Your task to perform on an android device: Open the calendar and show me this week's events? Image 0: 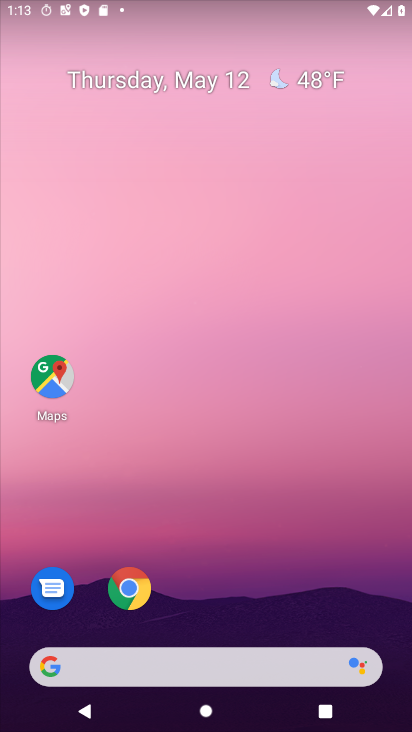
Step 0: drag from (221, 586) to (182, 187)
Your task to perform on an android device: Open the calendar and show me this week's events? Image 1: 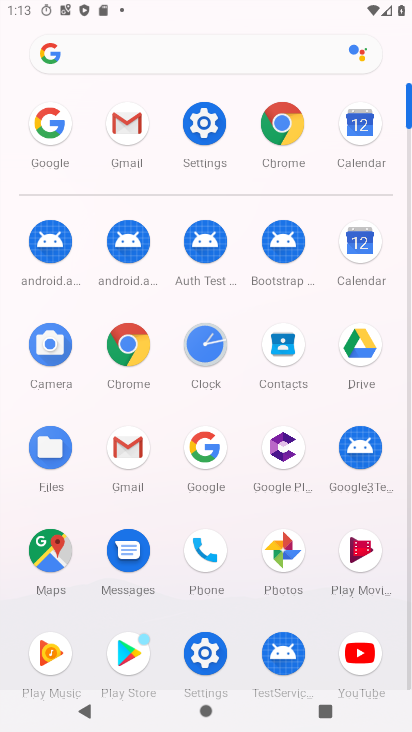
Step 1: click (360, 241)
Your task to perform on an android device: Open the calendar and show me this week's events? Image 2: 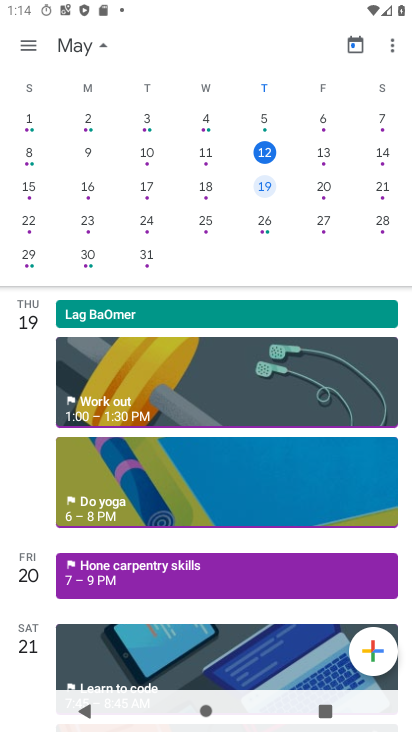
Step 2: click (270, 185)
Your task to perform on an android device: Open the calendar and show me this week's events? Image 3: 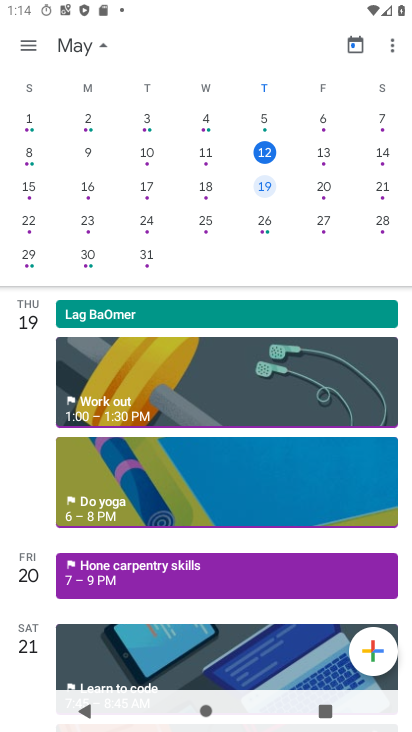
Step 3: task complete